Your task to perform on an android device: Open display settings Image 0: 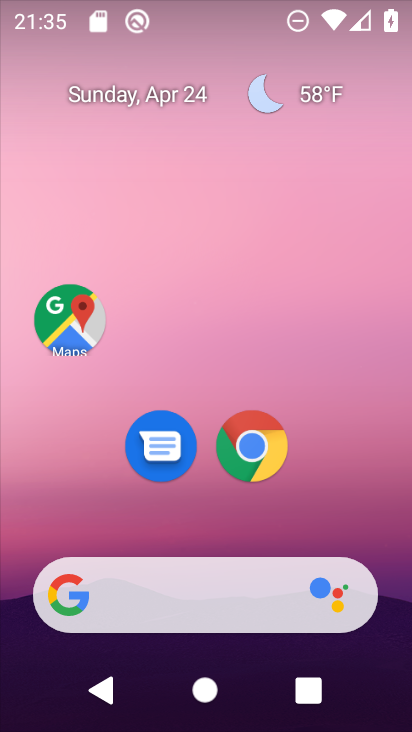
Step 0: drag from (126, 599) to (253, 146)
Your task to perform on an android device: Open display settings Image 1: 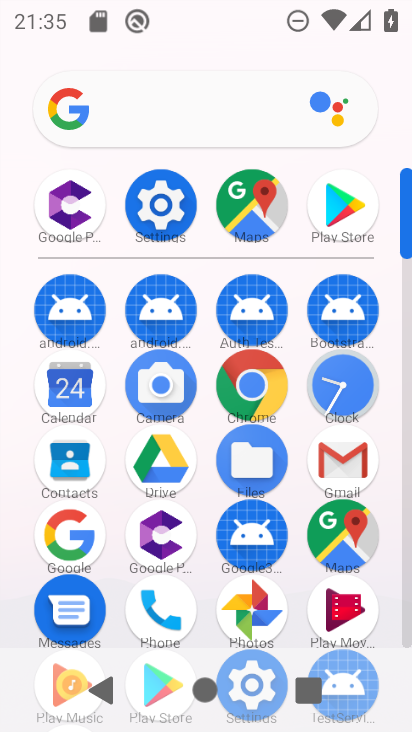
Step 1: click (175, 230)
Your task to perform on an android device: Open display settings Image 2: 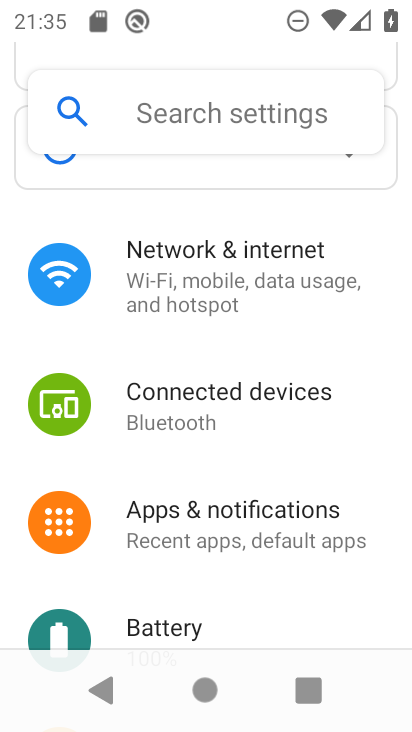
Step 2: drag from (229, 584) to (313, 170)
Your task to perform on an android device: Open display settings Image 3: 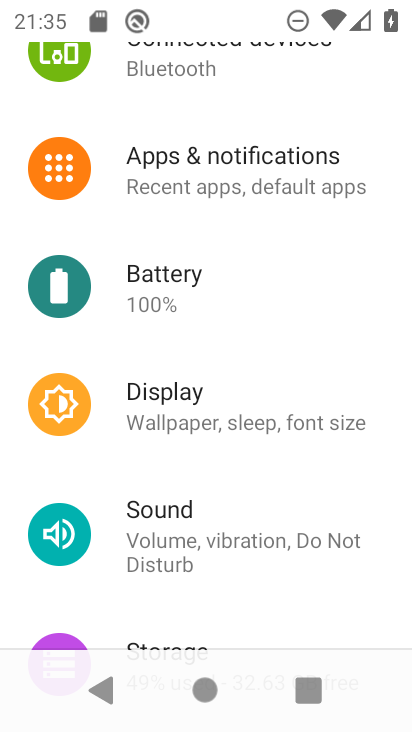
Step 3: click (175, 407)
Your task to perform on an android device: Open display settings Image 4: 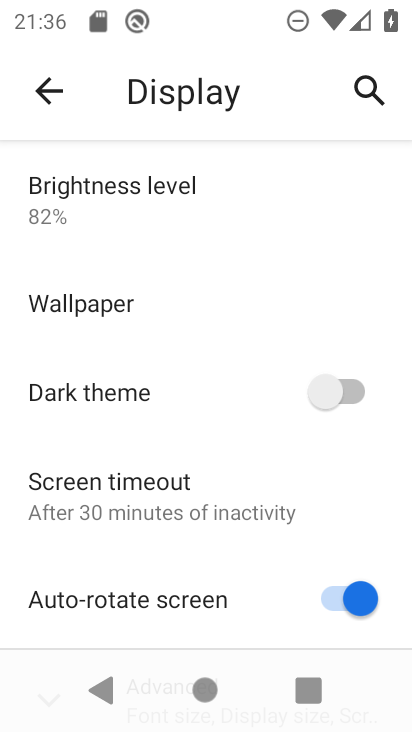
Step 4: task complete